Your task to perform on an android device: see creations saved in the google photos Image 0: 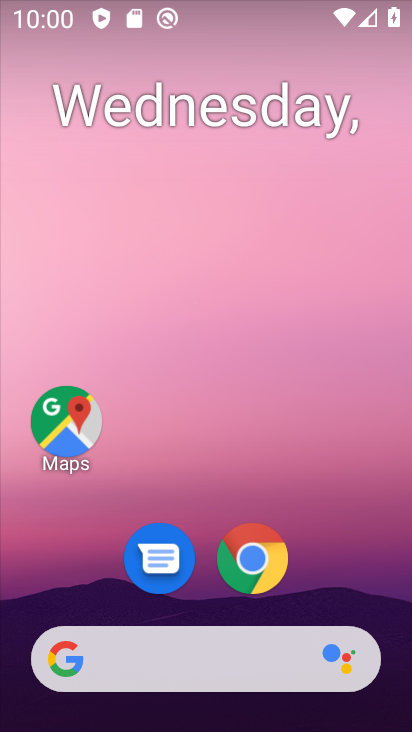
Step 0: drag from (37, 549) to (172, 190)
Your task to perform on an android device: see creations saved in the google photos Image 1: 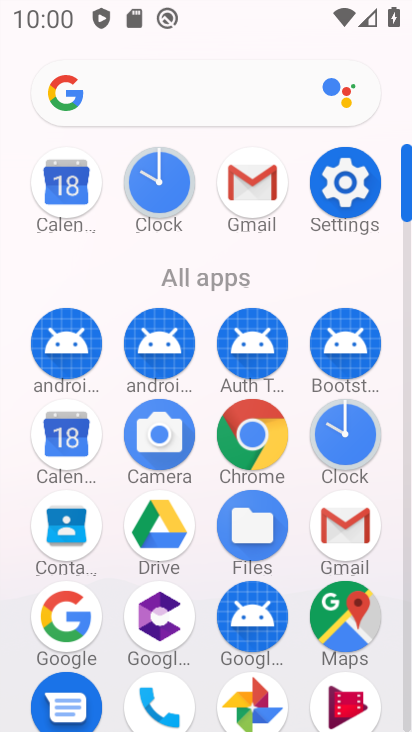
Step 1: click (253, 684)
Your task to perform on an android device: see creations saved in the google photos Image 2: 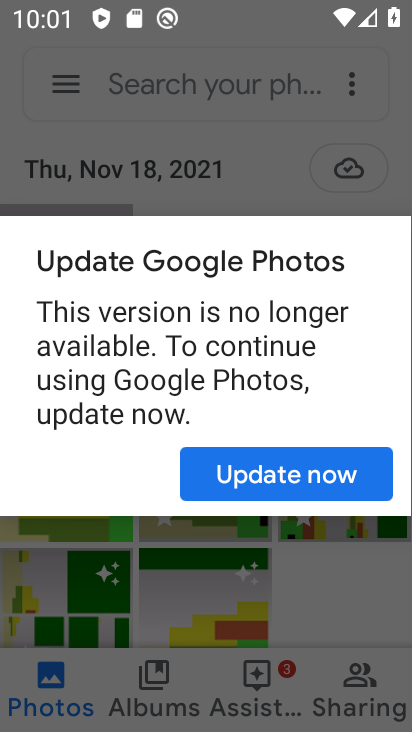
Step 2: click (261, 477)
Your task to perform on an android device: see creations saved in the google photos Image 3: 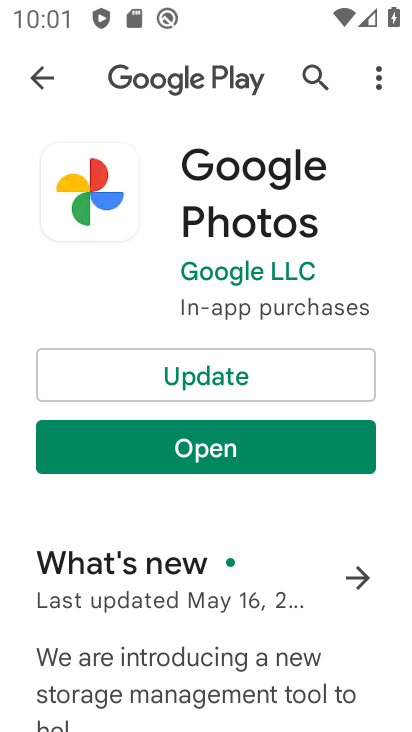
Step 3: click (207, 455)
Your task to perform on an android device: see creations saved in the google photos Image 4: 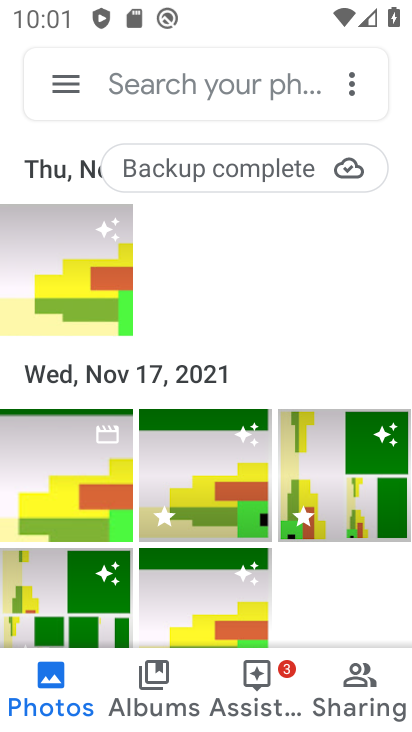
Step 4: click (197, 75)
Your task to perform on an android device: see creations saved in the google photos Image 5: 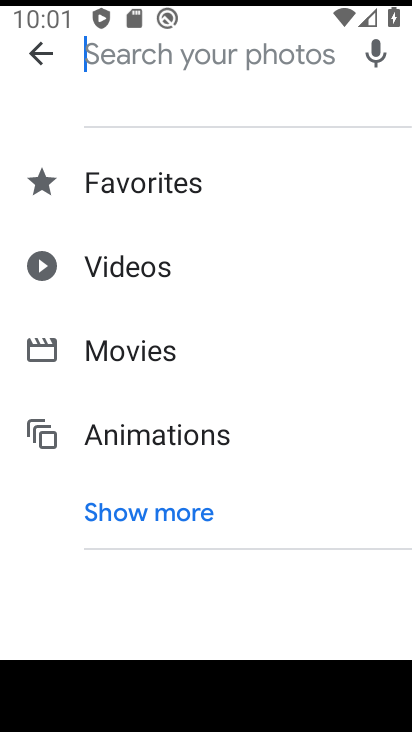
Step 5: click (136, 517)
Your task to perform on an android device: see creations saved in the google photos Image 6: 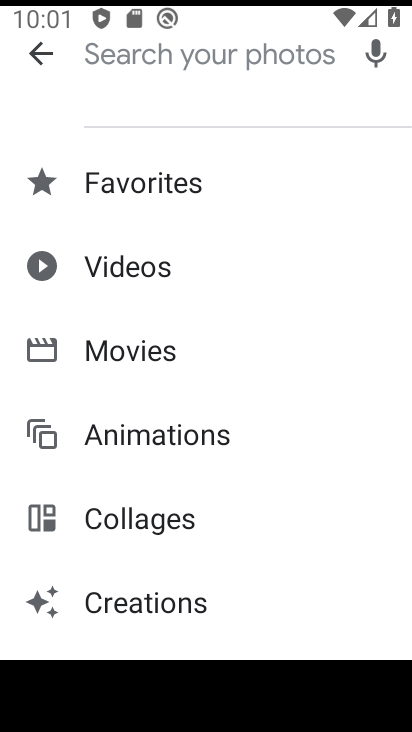
Step 6: click (109, 606)
Your task to perform on an android device: see creations saved in the google photos Image 7: 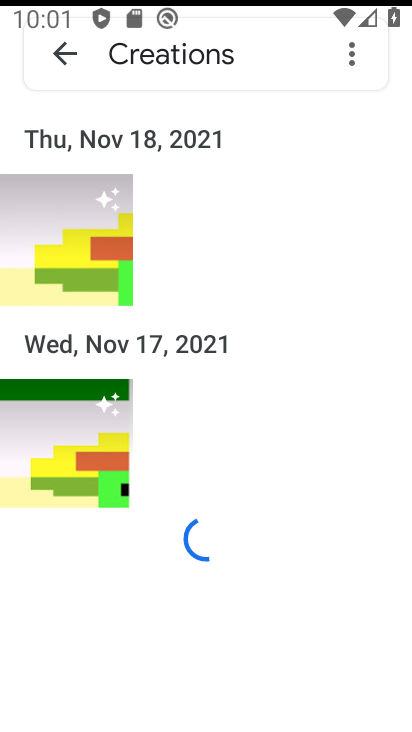
Step 7: task complete